Your task to perform on an android device: Open eBay Image 0: 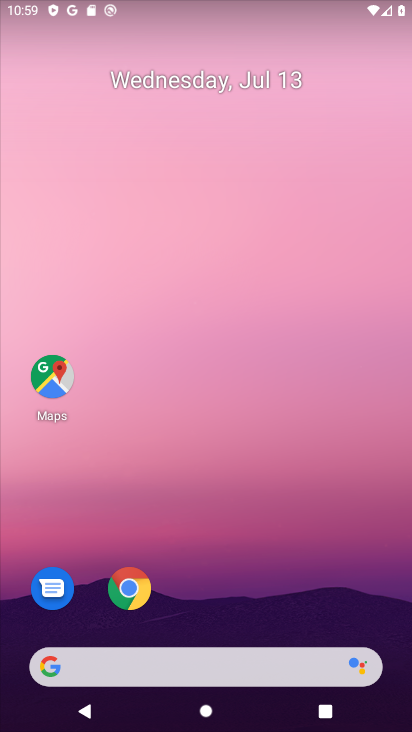
Step 0: press home button
Your task to perform on an android device: Open eBay Image 1: 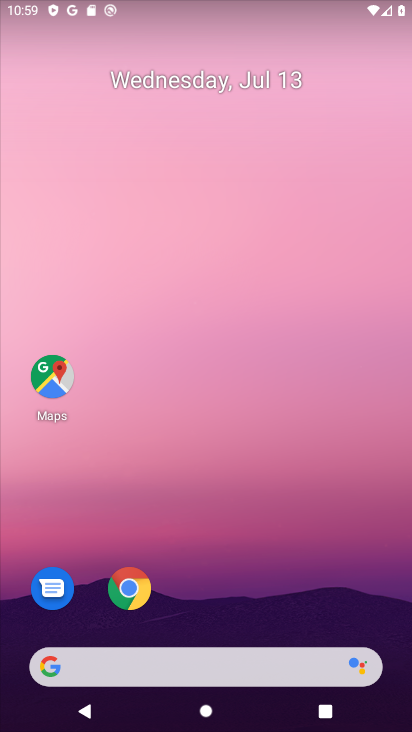
Step 1: drag from (226, 593) to (230, 124)
Your task to perform on an android device: Open eBay Image 2: 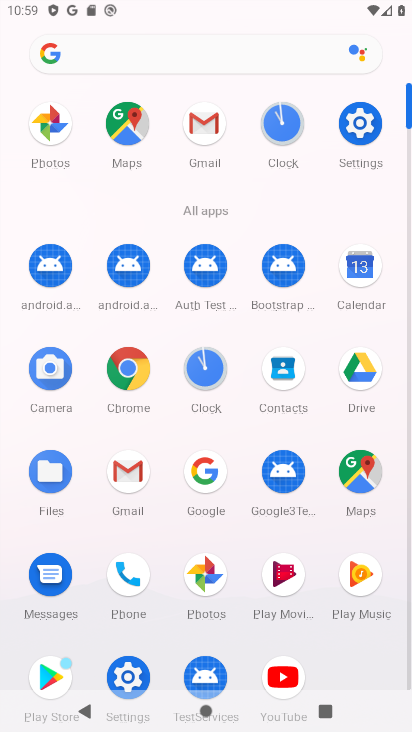
Step 2: click (205, 472)
Your task to perform on an android device: Open eBay Image 3: 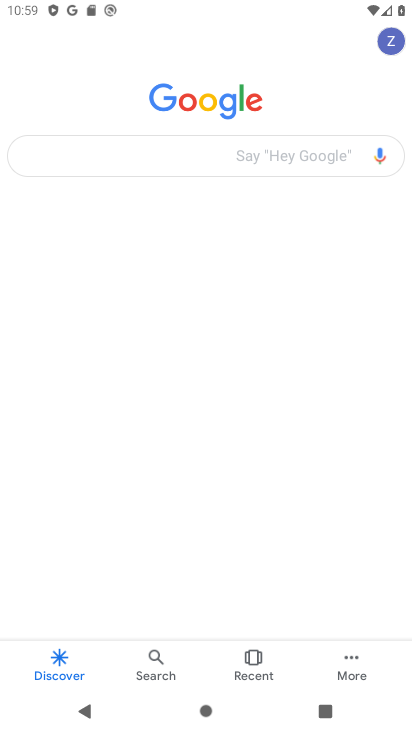
Step 3: click (165, 151)
Your task to perform on an android device: Open eBay Image 4: 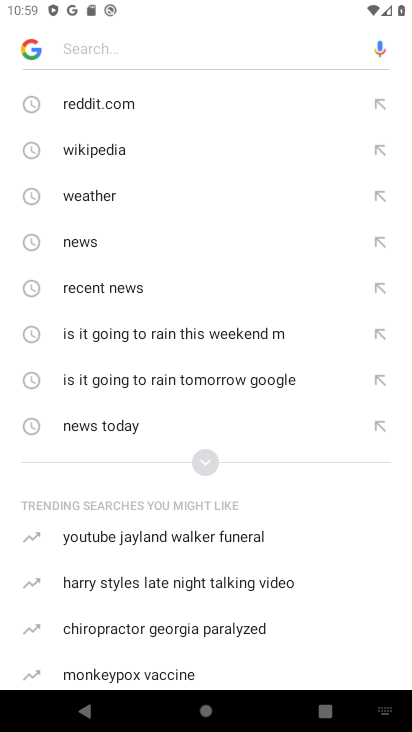
Step 4: type "ebay"
Your task to perform on an android device: Open eBay Image 5: 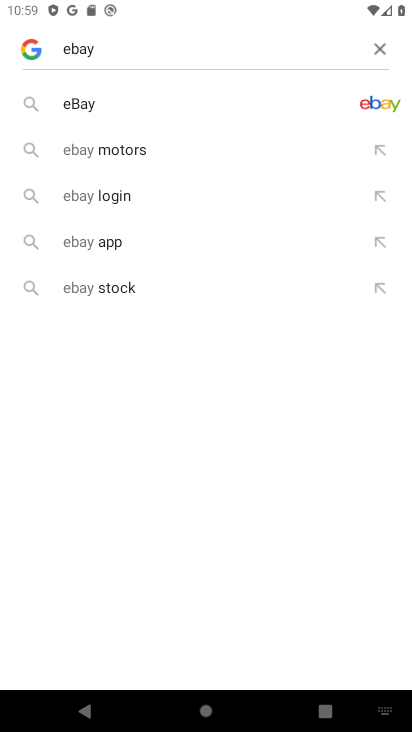
Step 5: click (116, 109)
Your task to perform on an android device: Open eBay Image 6: 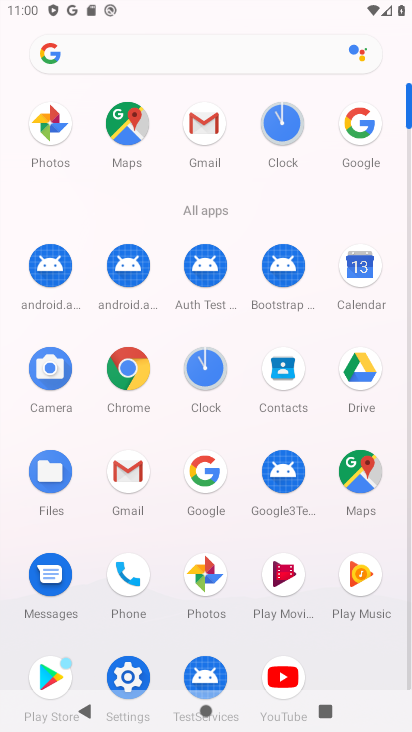
Step 6: click (356, 128)
Your task to perform on an android device: Open eBay Image 7: 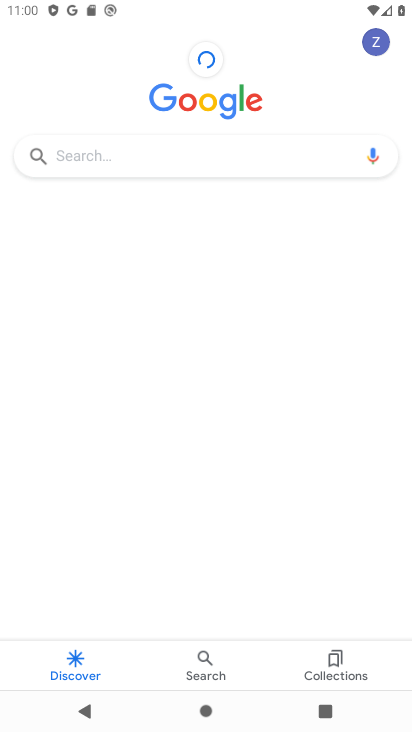
Step 7: click (157, 157)
Your task to perform on an android device: Open eBay Image 8: 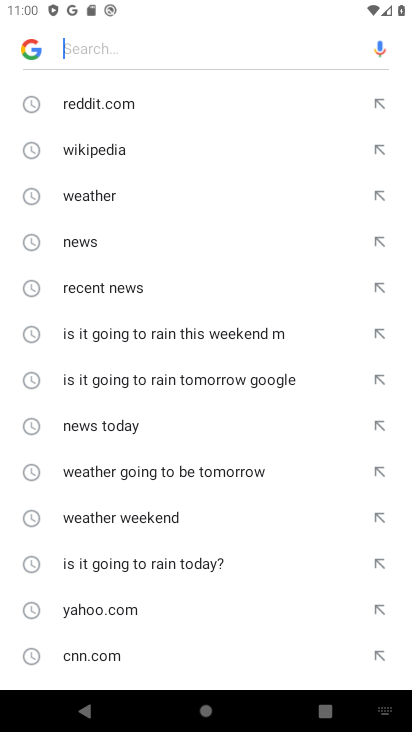
Step 8: type "ebay"
Your task to perform on an android device: Open eBay Image 9: 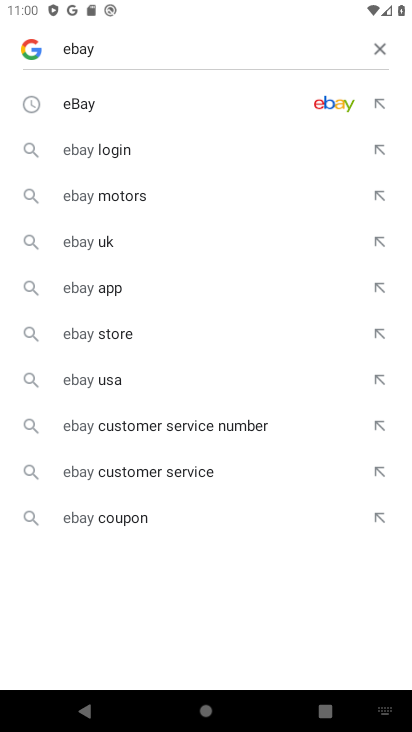
Step 9: click (129, 106)
Your task to perform on an android device: Open eBay Image 10: 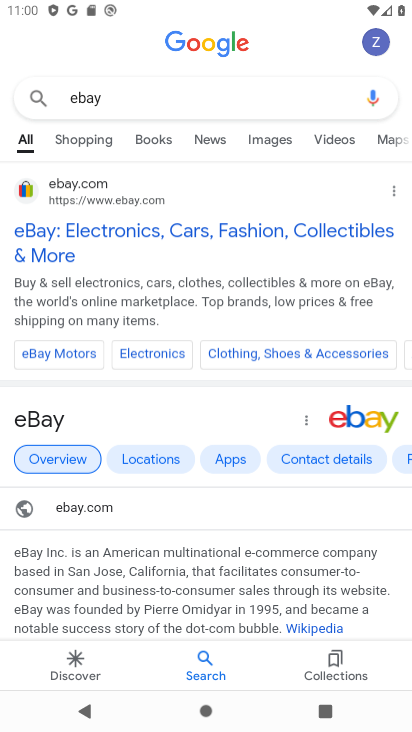
Step 10: task complete